Your task to perform on an android device: Open Google Maps Image 0: 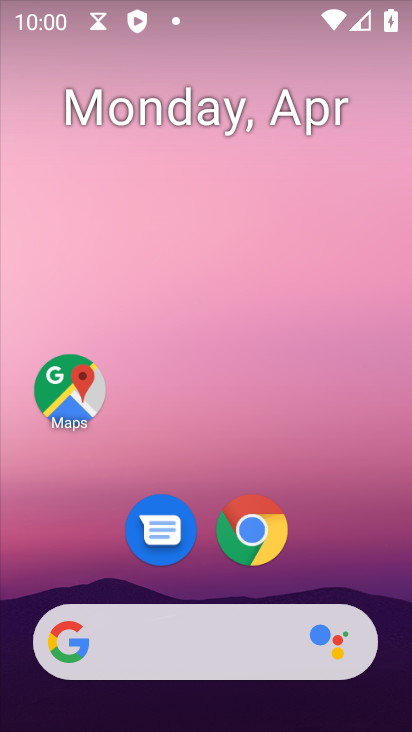
Step 0: click (81, 395)
Your task to perform on an android device: Open Google Maps Image 1: 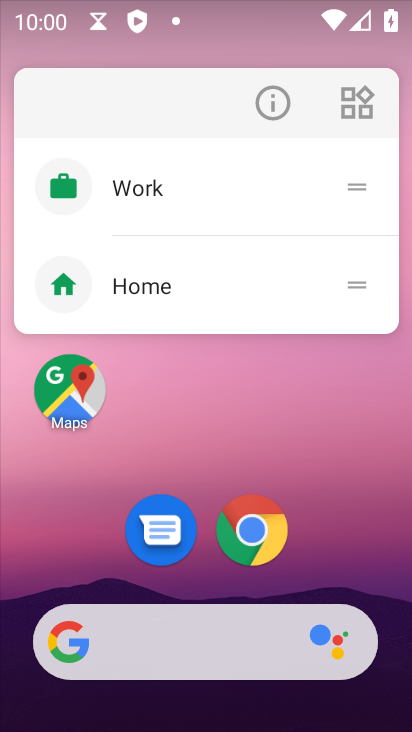
Step 1: drag from (223, 364) to (279, 57)
Your task to perform on an android device: Open Google Maps Image 2: 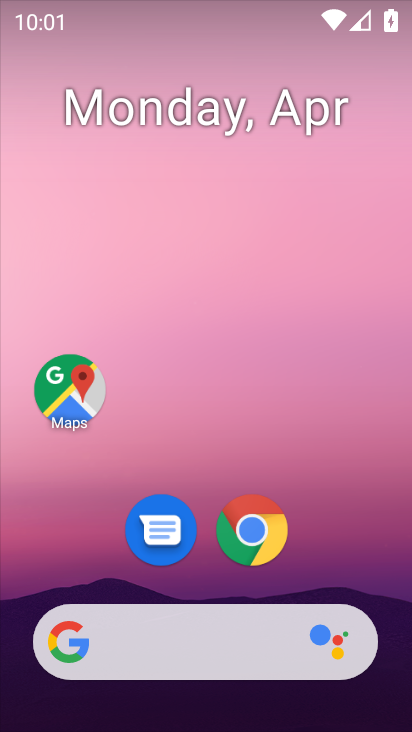
Step 2: drag from (214, 547) to (337, 100)
Your task to perform on an android device: Open Google Maps Image 3: 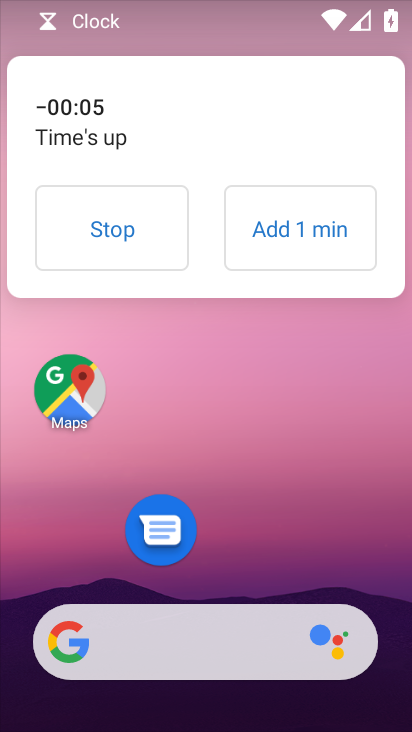
Step 3: click (260, 504)
Your task to perform on an android device: Open Google Maps Image 4: 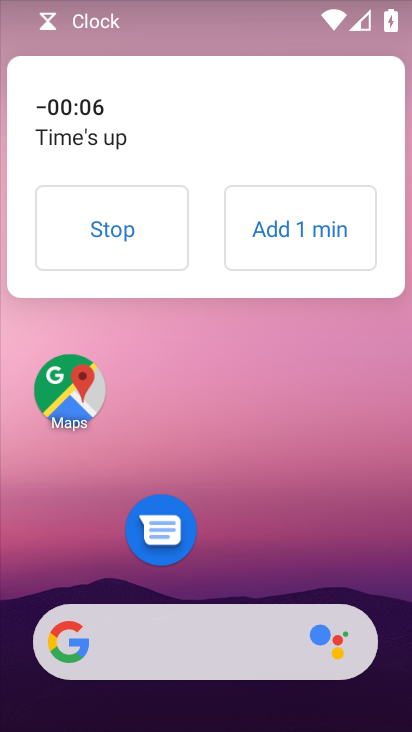
Step 4: drag from (222, 516) to (260, 61)
Your task to perform on an android device: Open Google Maps Image 5: 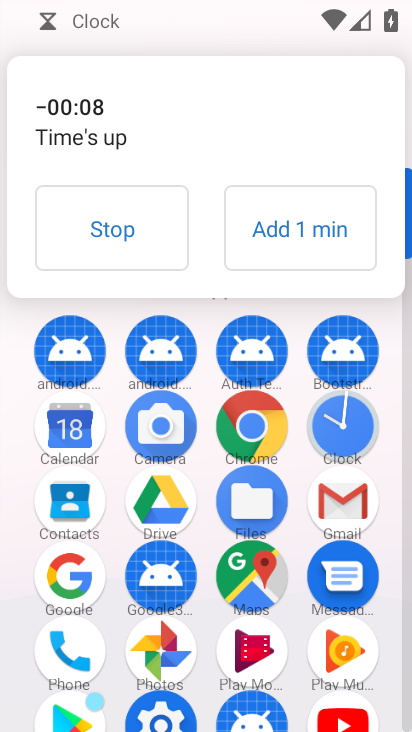
Step 5: click (122, 254)
Your task to perform on an android device: Open Google Maps Image 6: 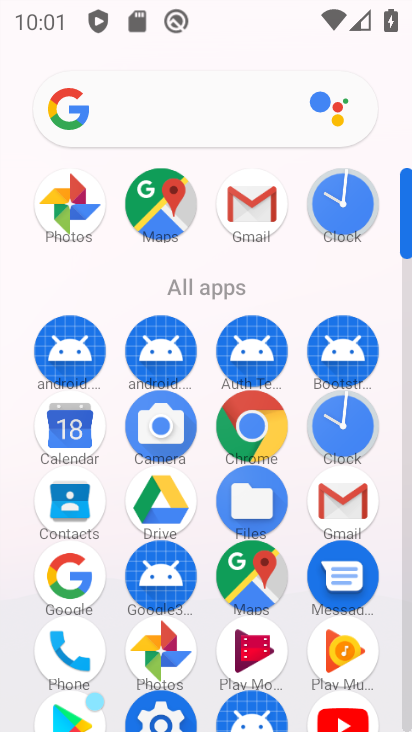
Step 6: drag from (216, 542) to (285, 282)
Your task to perform on an android device: Open Google Maps Image 7: 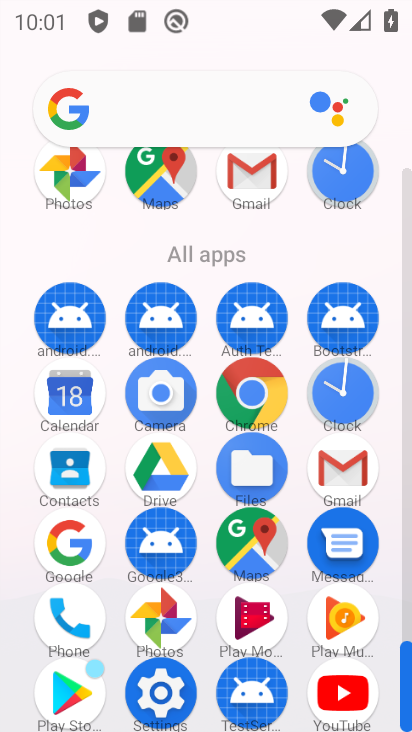
Step 7: click (252, 541)
Your task to perform on an android device: Open Google Maps Image 8: 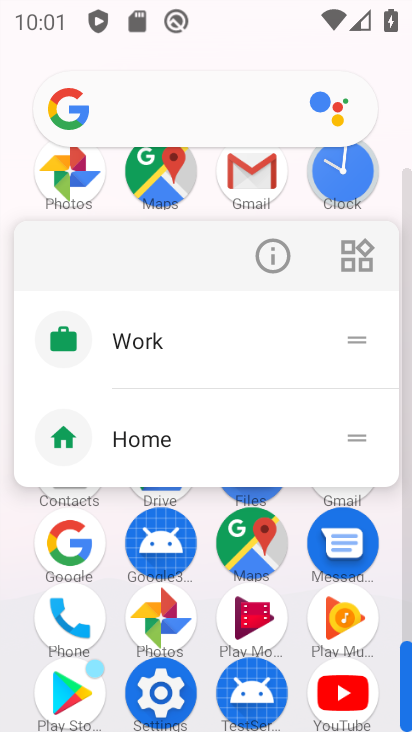
Step 8: click (258, 548)
Your task to perform on an android device: Open Google Maps Image 9: 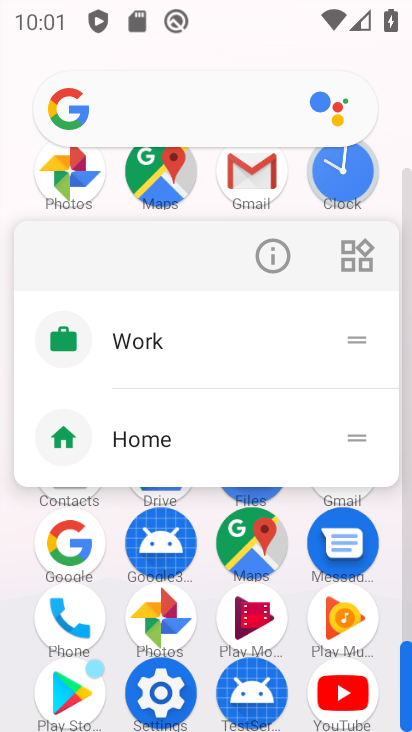
Step 9: click (248, 545)
Your task to perform on an android device: Open Google Maps Image 10: 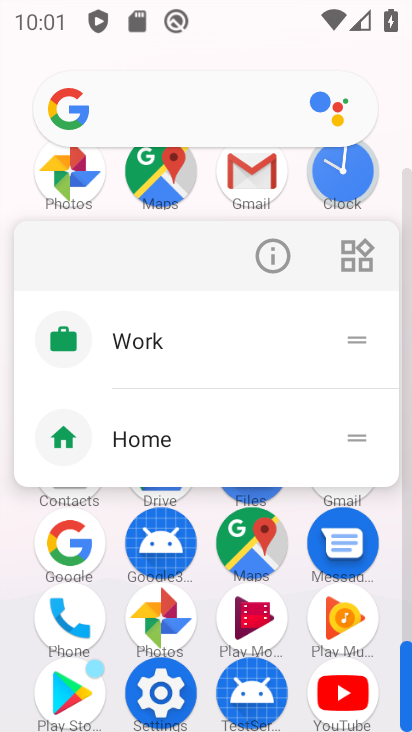
Step 10: click (248, 544)
Your task to perform on an android device: Open Google Maps Image 11: 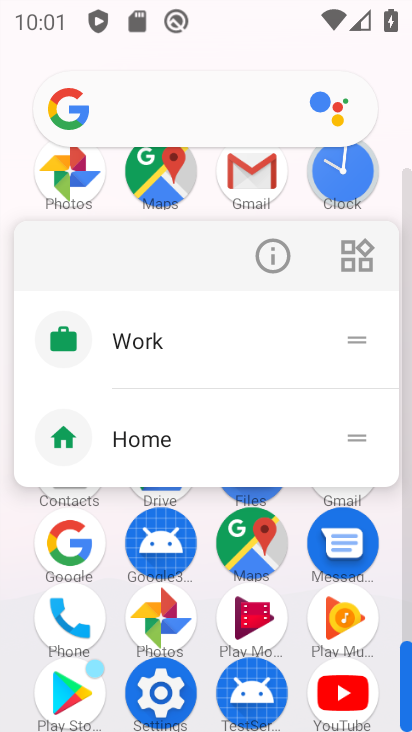
Step 11: click (249, 546)
Your task to perform on an android device: Open Google Maps Image 12: 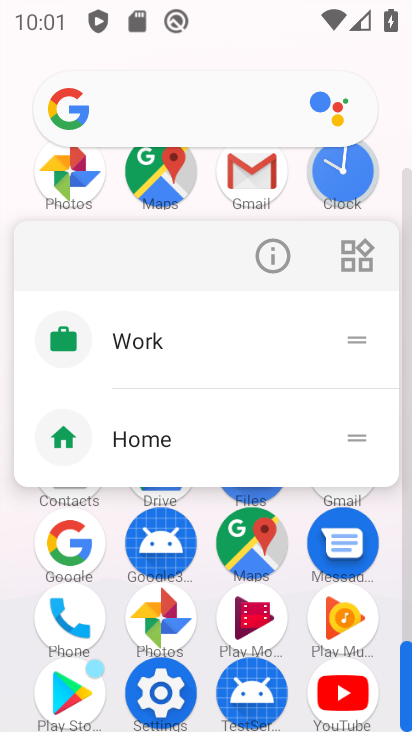
Step 12: click (258, 540)
Your task to perform on an android device: Open Google Maps Image 13: 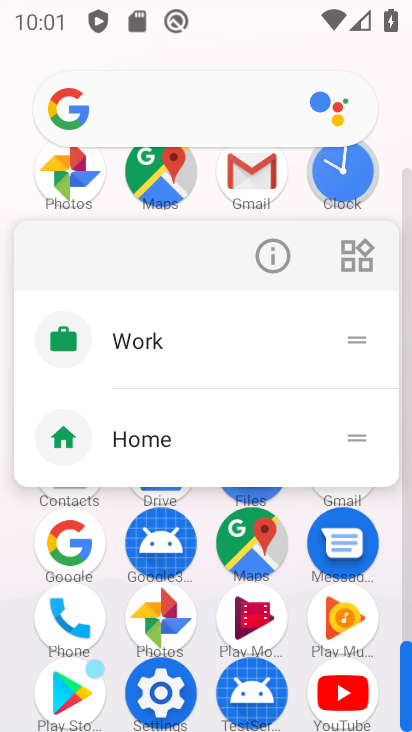
Step 13: click (234, 557)
Your task to perform on an android device: Open Google Maps Image 14: 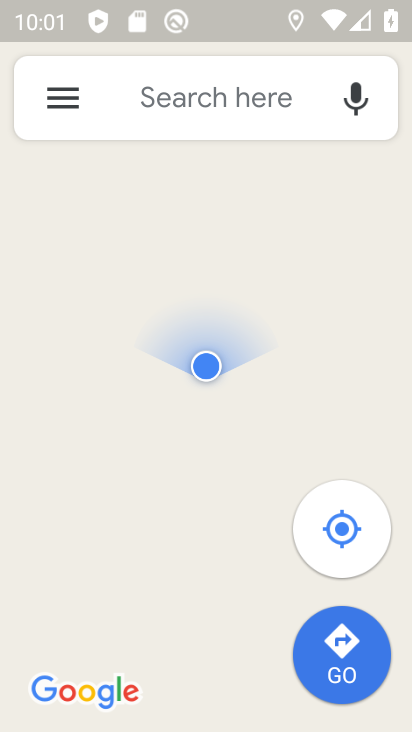
Step 14: task complete